Your task to perform on an android device: delete a single message in the gmail app Image 0: 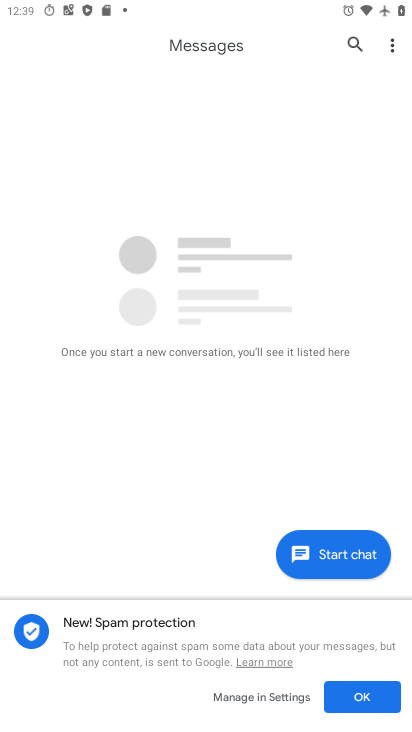
Step 0: press home button
Your task to perform on an android device: delete a single message in the gmail app Image 1: 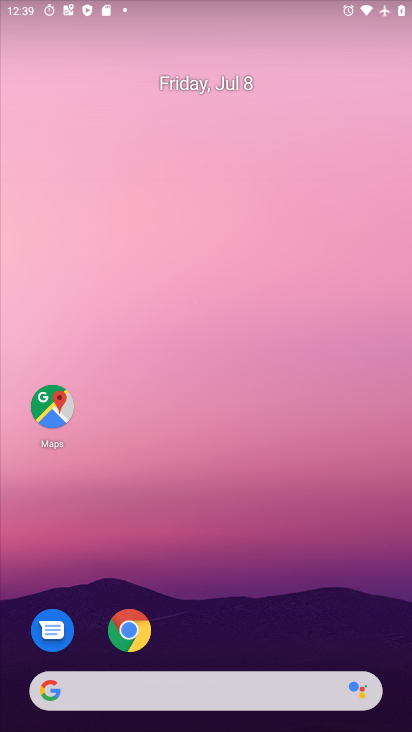
Step 1: drag from (229, 632) to (213, 136)
Your task to perform on an android device: delete a single message in the gmail app Image 2: 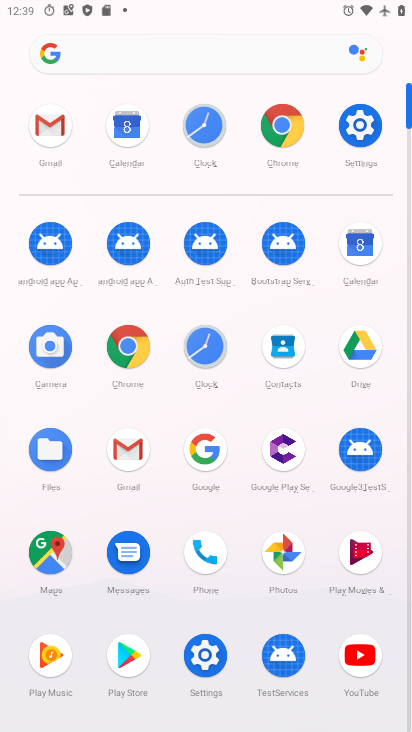
Step 2: click (36, 147)
Your task to perform on an android device: delete a single message in the gmail app Image 3: 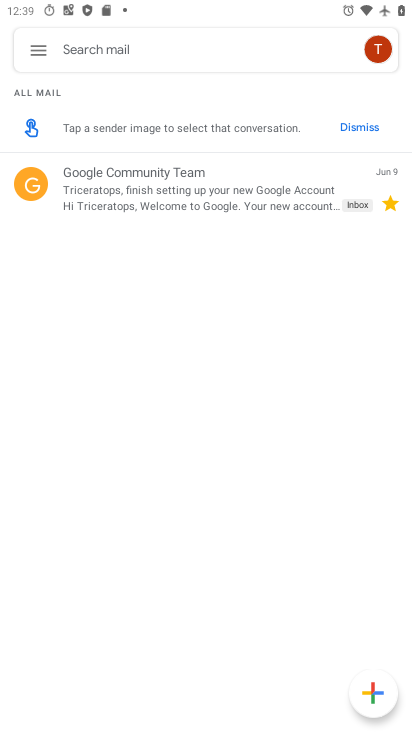
Step 3: click (234, 185)
Your task to perform on an android device: delete a single message in the gmail app Image 4: 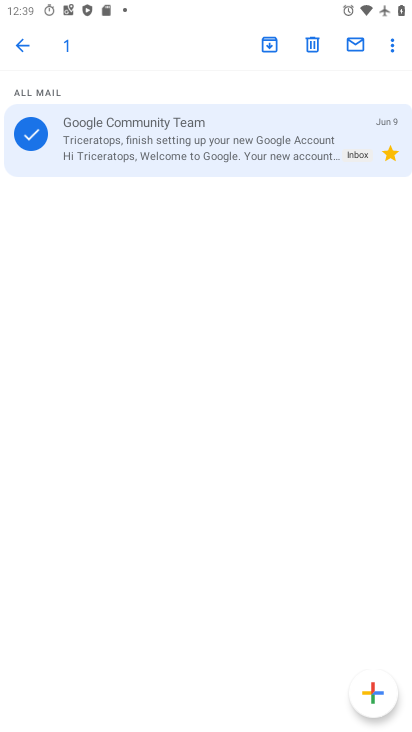
Step 4: click (310, 44)
Your task to perform on an android device: delete a single message in the gmail app Image 5: 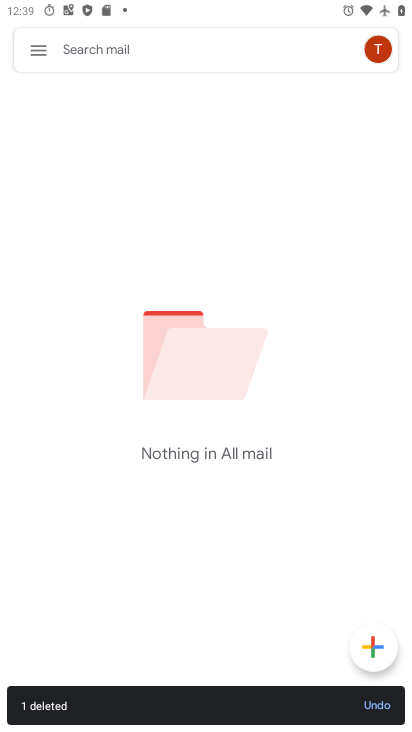
Step 5: task complete